Your task to perform on an android device: delete the emails in spam in the gmail app Image 0: 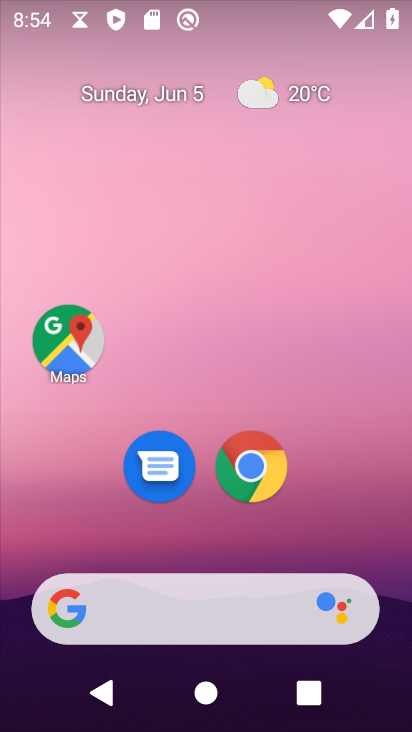
Step 0: drag from (197, 561) to (171, 173)
Your task to perform on an android device: delete the emails in spam in the gmail app Image 1: 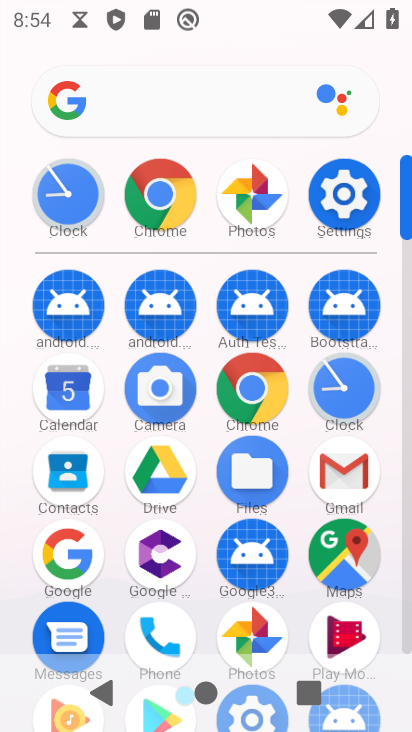
Step 1: click (336, 480)
Your task to perform on an android device: delete the emails in spam in the gmail app Image 2: 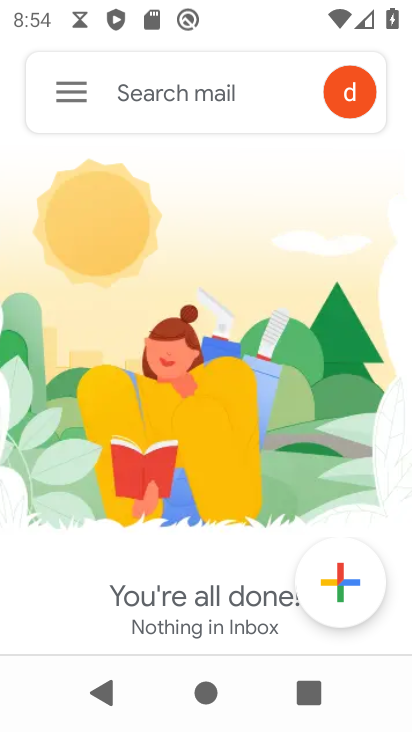
Step 2: click (63, 98)
Your task to perform on an android device: delete the emails in spam in the gmail app Image 3: 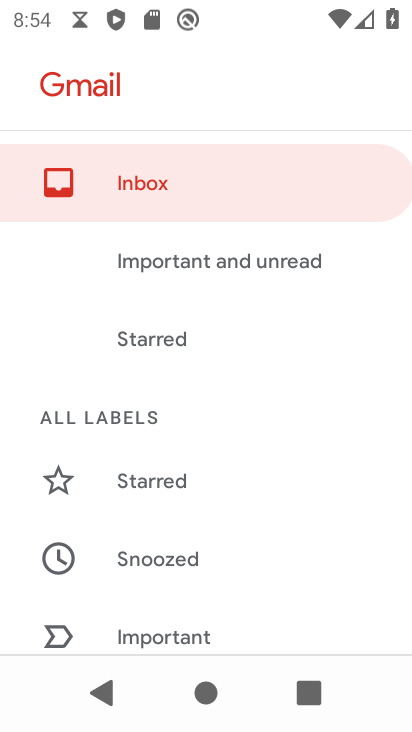
Step 3: drag from (279, 588) to (272, 207)
Your task to perform on an android device: delete the emails in spam in the gmail app Image 4: 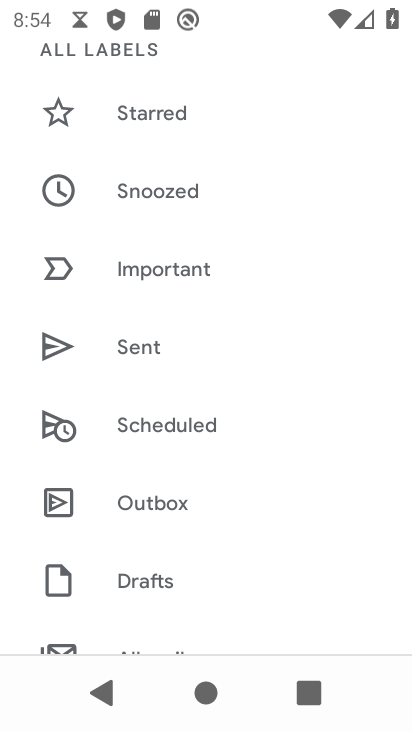
Step 4: drag from (221, 544) to (219, 226)
Your task to perform on an android device: delete the emails in spam in the gmail app Image 5: 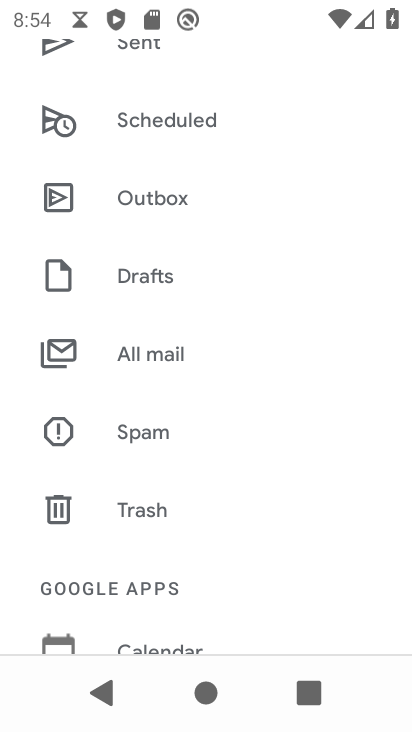
Step 5: click (160, 345)
Your task to perform on an android device: delete the emails in spam in the gmail app Image 6: 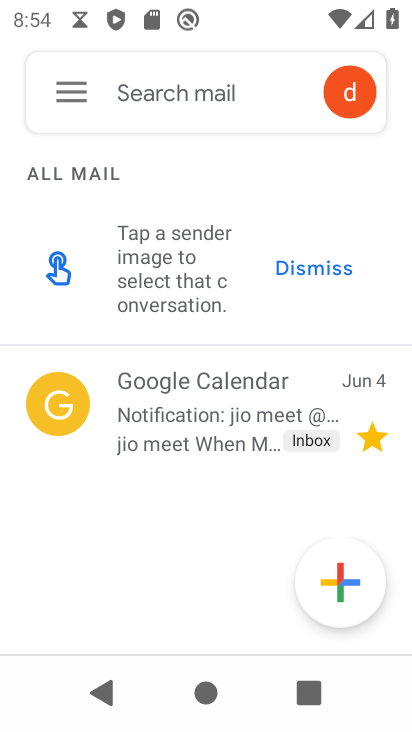
Step 6: click (68, 98)
Your task to perform on an android device: delete the emails in spam in the gmail app Image 7: 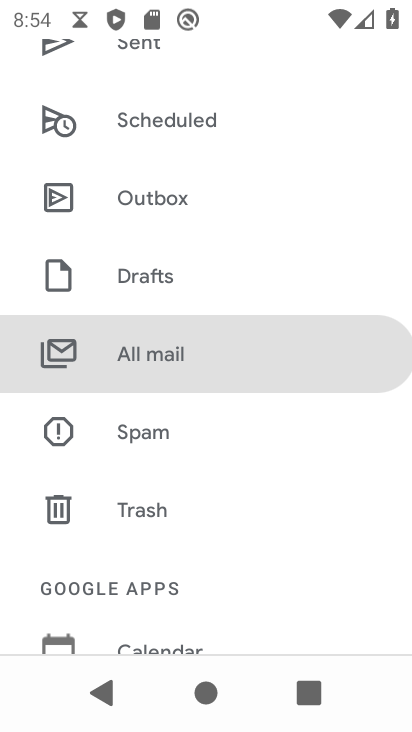
Step 7: click (149, 426)
Your task to perform on an android device: delete the emails in spam in the gmail app Image 8: 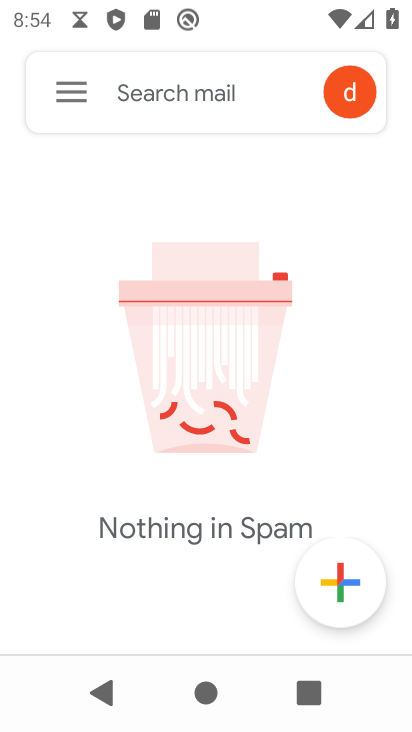
Step 8: task complete